Your task to perform on an android device: Search for Mexican restaurants on Maps Image 0: 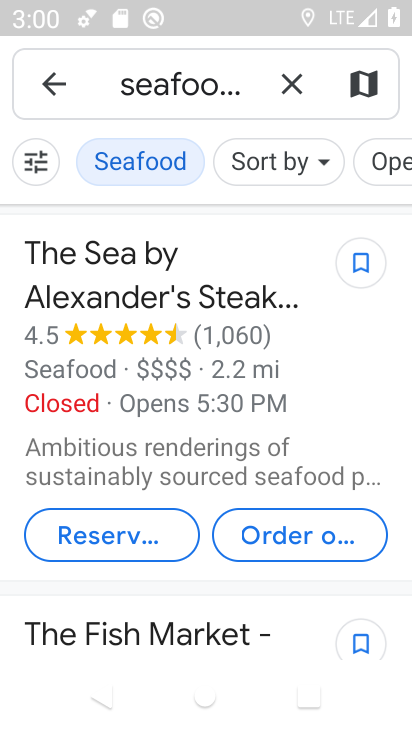
Step 0: press home button
Your task to perform on an android device: Search for Mexican restaurants on Maps Image 1: 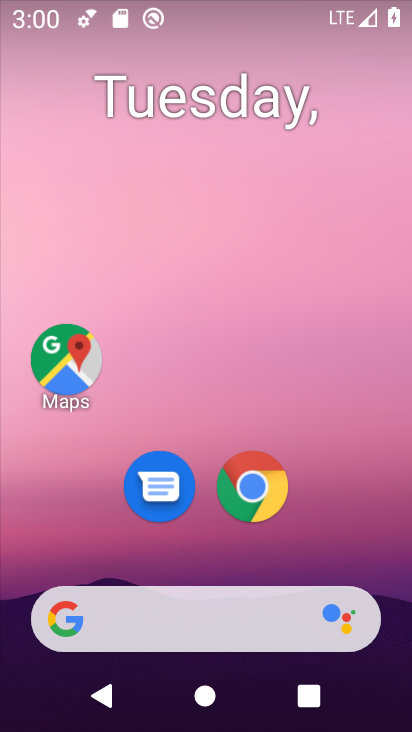
Step 1: click (72, 354)
Your task to perform on an android device: Search for Mexican restaurants on Maps Image 2: 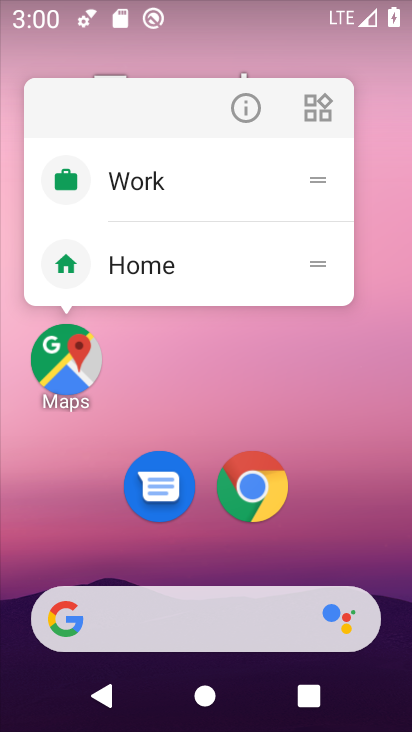
Step 2: click (65, 350)
Your task to perform on an android device: Search for Mexican restaurants on Maps Image 3: 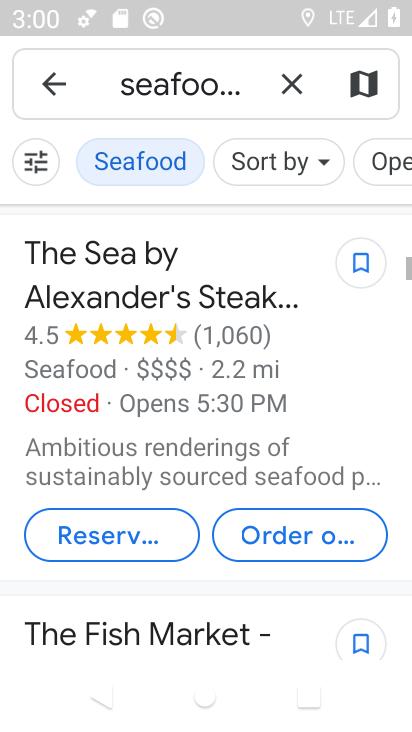
Step 3: click (287, 88)
Your task to perform on an android device: Search for Mexican restaurants on Maps Image 4: 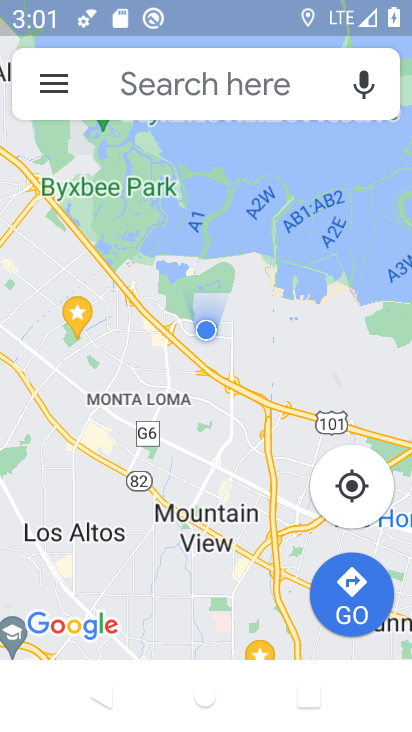
Step 4: click (177, 80)
Your task to perform on an android device: Search for Mexican restaurants on Maps Image 5: 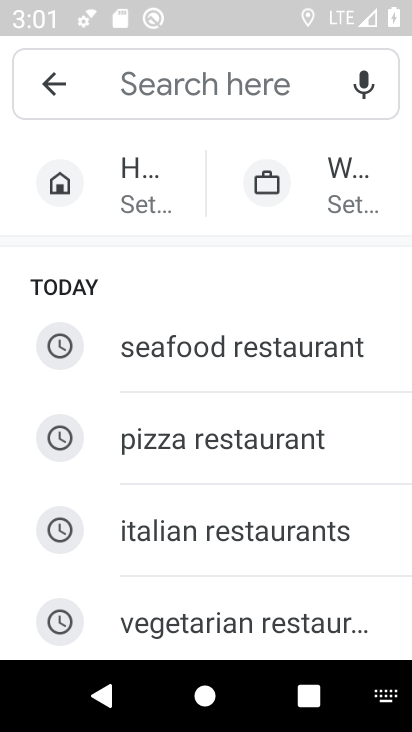
Step 5: drag from (210, 574) to (180, 178)
Your task to perform on an android device: Search for Mexican restaurants on Maps Image 6: 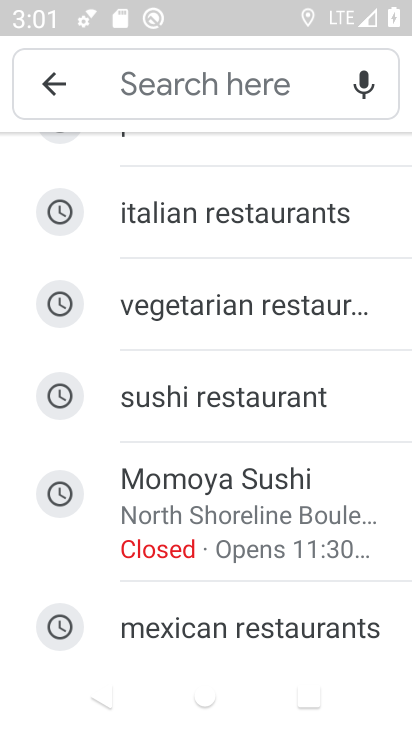
Step 6: click (206, 613)
Your task to perform on an android device: Search for Mexican restaurants on Maps Image 7: 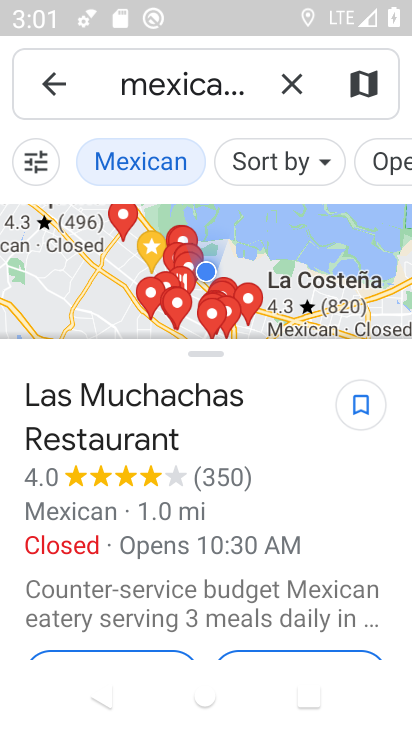
Step 7: task complete